Your task to perform on an android device: When is my next meeting? Image 0: 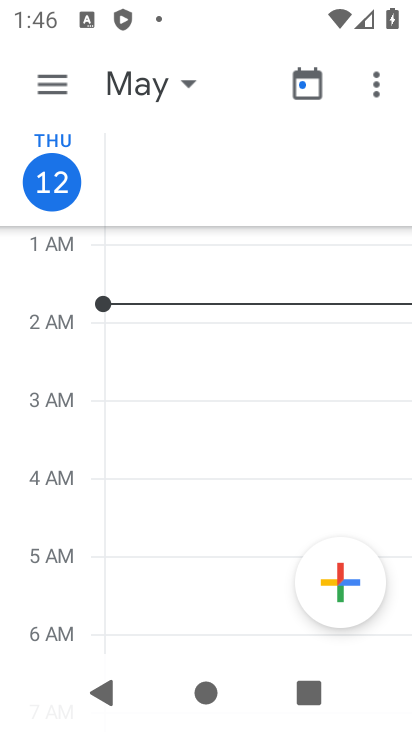
Step 0: click (61, 74)
Your task to perform on an android device: When is my next meeting? Image 1: 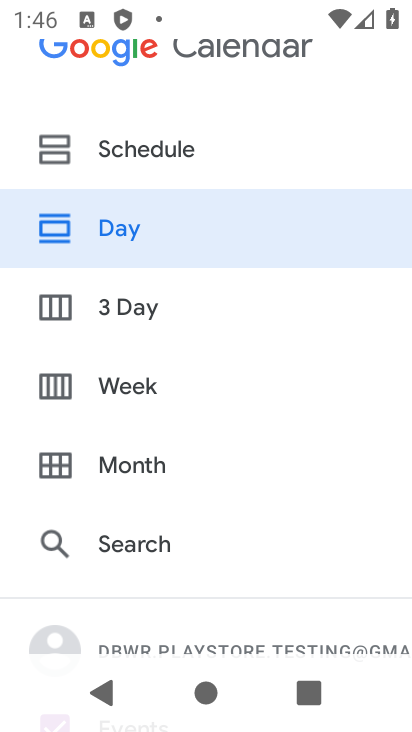
Step 1: click (133, 455)
Your task to perform on an android device: When is my next meeting? Image 2: 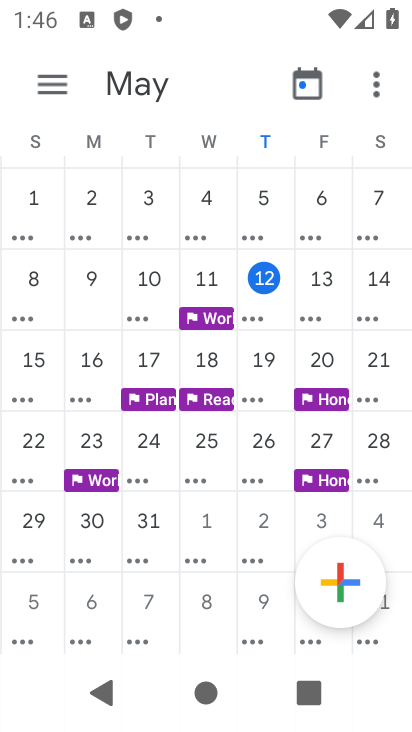
Step 2: click (312, 277)
Your task to perform on an android device: When is my next meeting? Image 3: 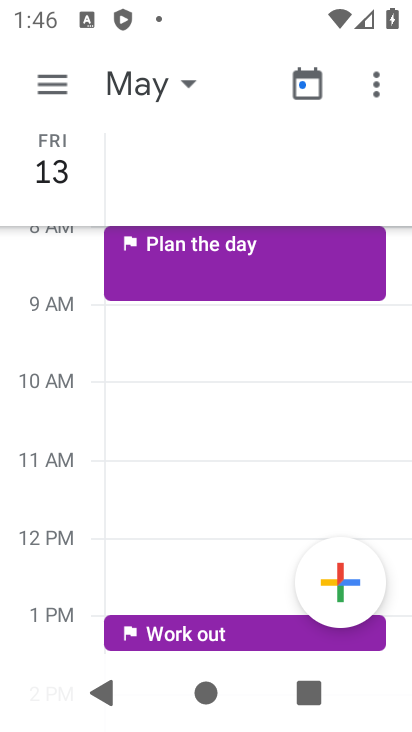
Step 3: click (52, 96)
Your task to perform on an android device: When is my next meeting? Image 4: 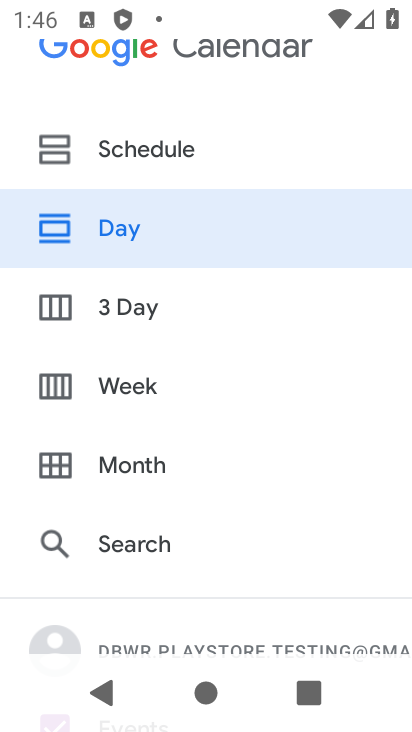
Step 4: drag from (140, 575) to (207, 257)
Your task to perform on an android device: When is my next meeting? Image 5: 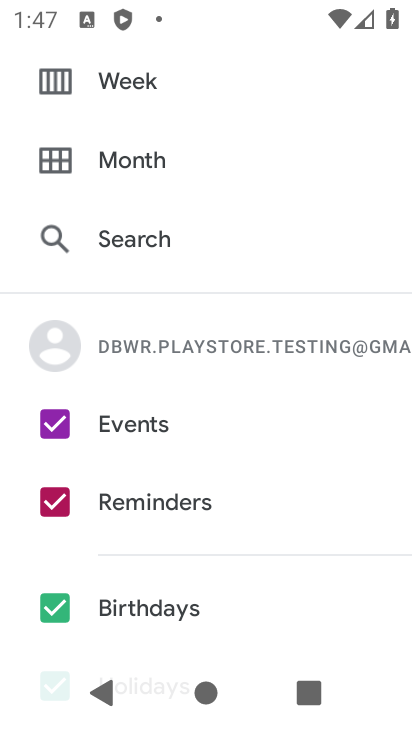
Step 5: drag from (253, 526) to (264, 269)
Your task to perform on an android device: When is my next meeting? Image 6: 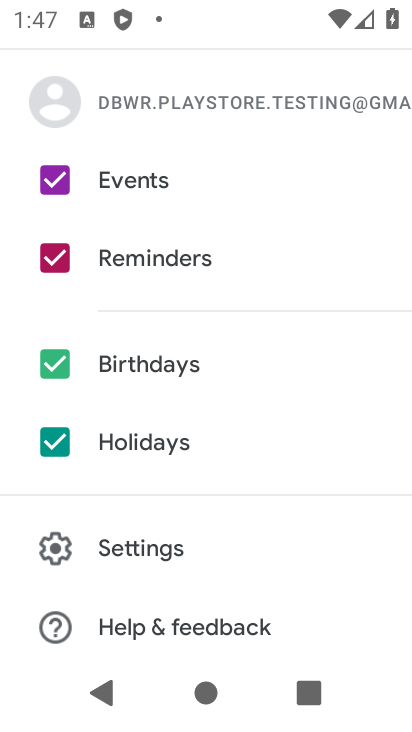
Step 6: drag from (217, 273) to (222, 595)
Your task to perform on an android device: When is my next meeting? Image 7: 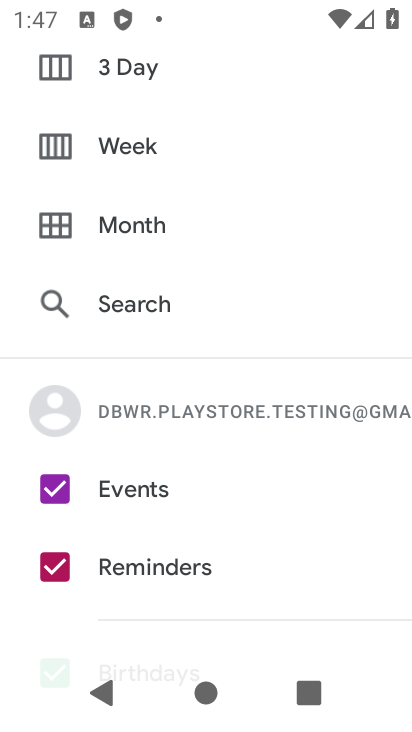
Step 7: click (139, 222)
Your task to perform on an android device: When is my next meeting? Image 8: 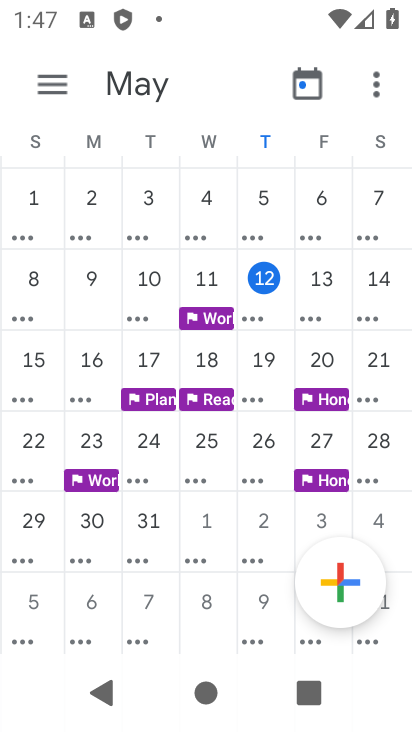
Step 8: click (257, 274)
Your task to perform on an android device: When is my next meeting? Image 9: 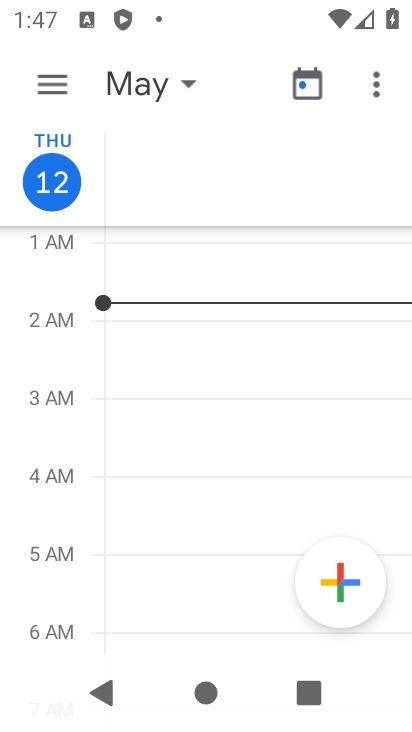
Step 9: click (43, 88)
Your task to perform on an android device: When is my next meeting? Image 10: 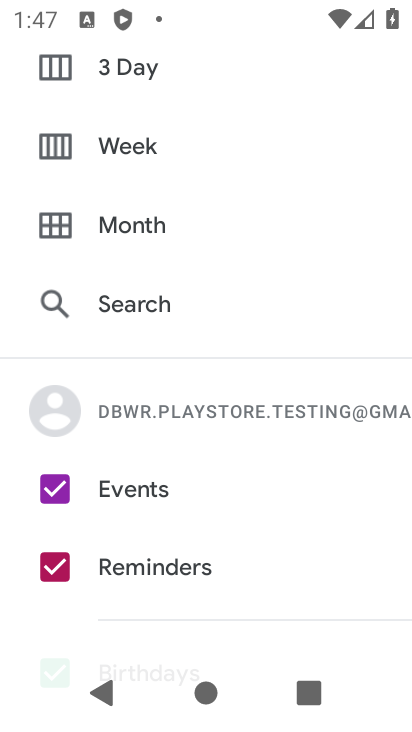
Step 10: click (71, 53)
Your task to perform on an android device: When is my next meeting? Image 11: 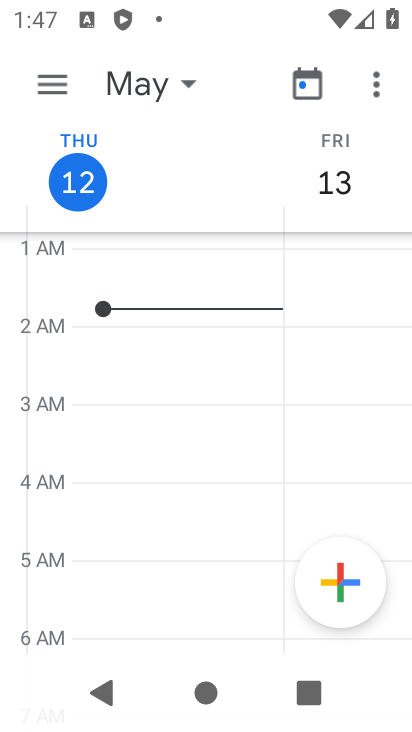
Step 11: task complete